Your task to perform on an android device: Open Google Chrome and click the shortcut for Amazon.com Image 0: 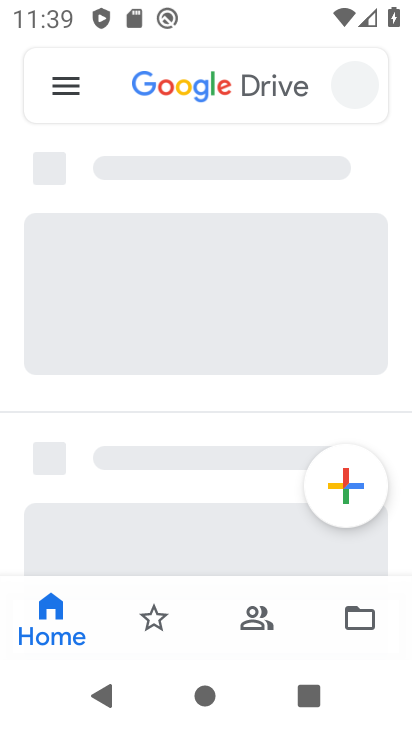
Step 0: drag from (385, 576) to (346, 325)
Your task to perform on an android device: Open Google Chrome and click the shortcut for Amazon.com Image 1: 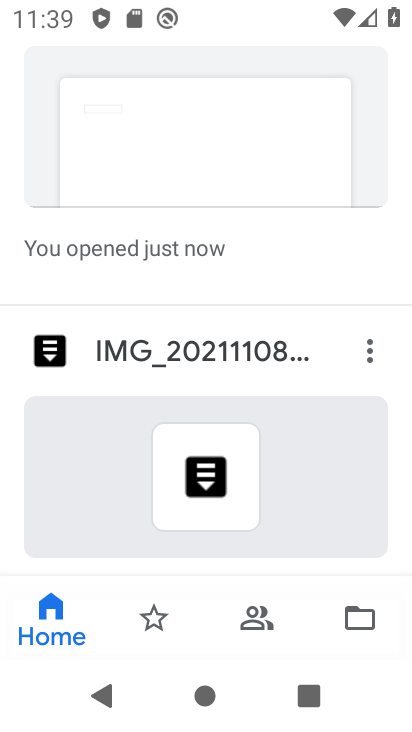
Step 1: press home button
Your task to perform on an android device: Open Google Chrome and click the shortcut for Amazon.com Image 2: 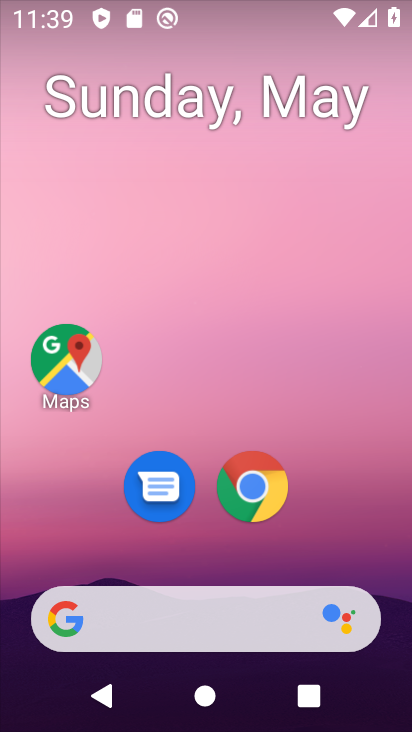
Step 2: click (264, 503)
Your task to perform on an android device: Open Google Chrome and click the shortcut for Amazon.com Image 3: 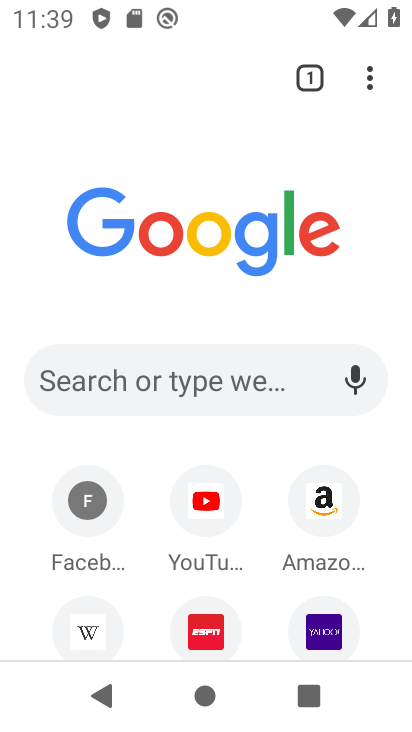
Step 3: click (325, 525)
Your task to perform on an android device: Open Google Chrome and click the shortcut for Amazon.com Image 4: 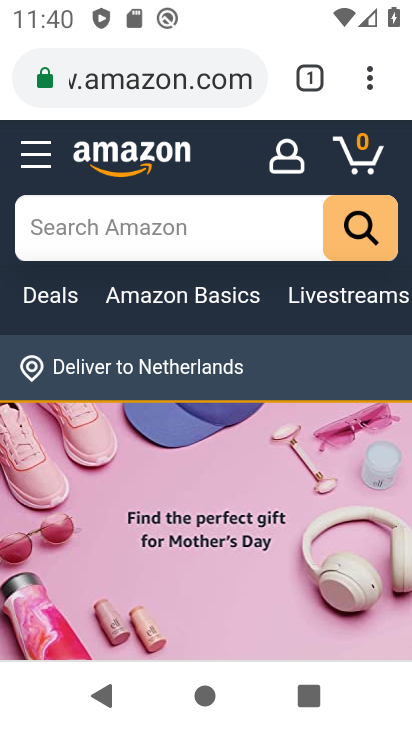
Step 4: task complete